Your task to perform on an android device: toggle translation in the chrome app Image 0: 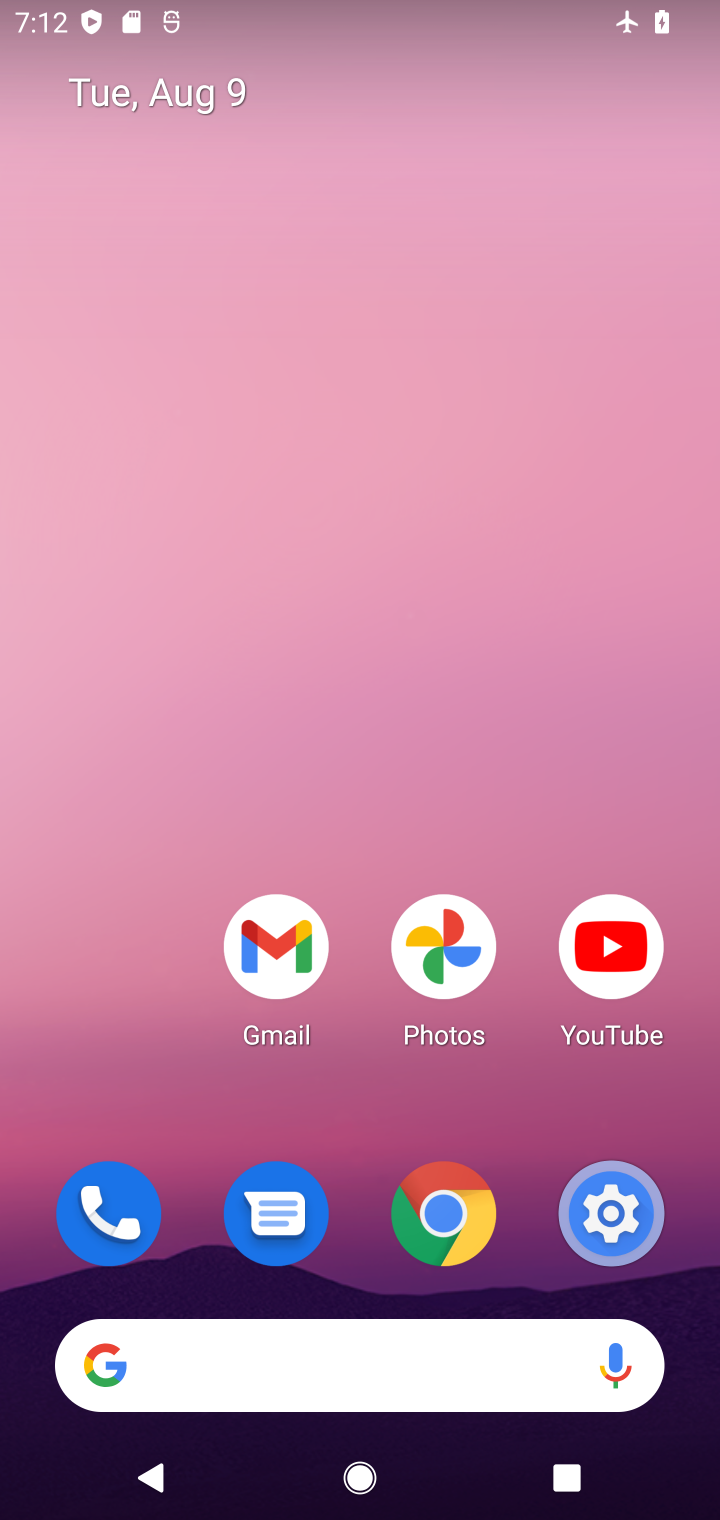
Step 0: click (445, 1233)
Your task to perform on an android device: toggle translation in the chrome app Image 1: 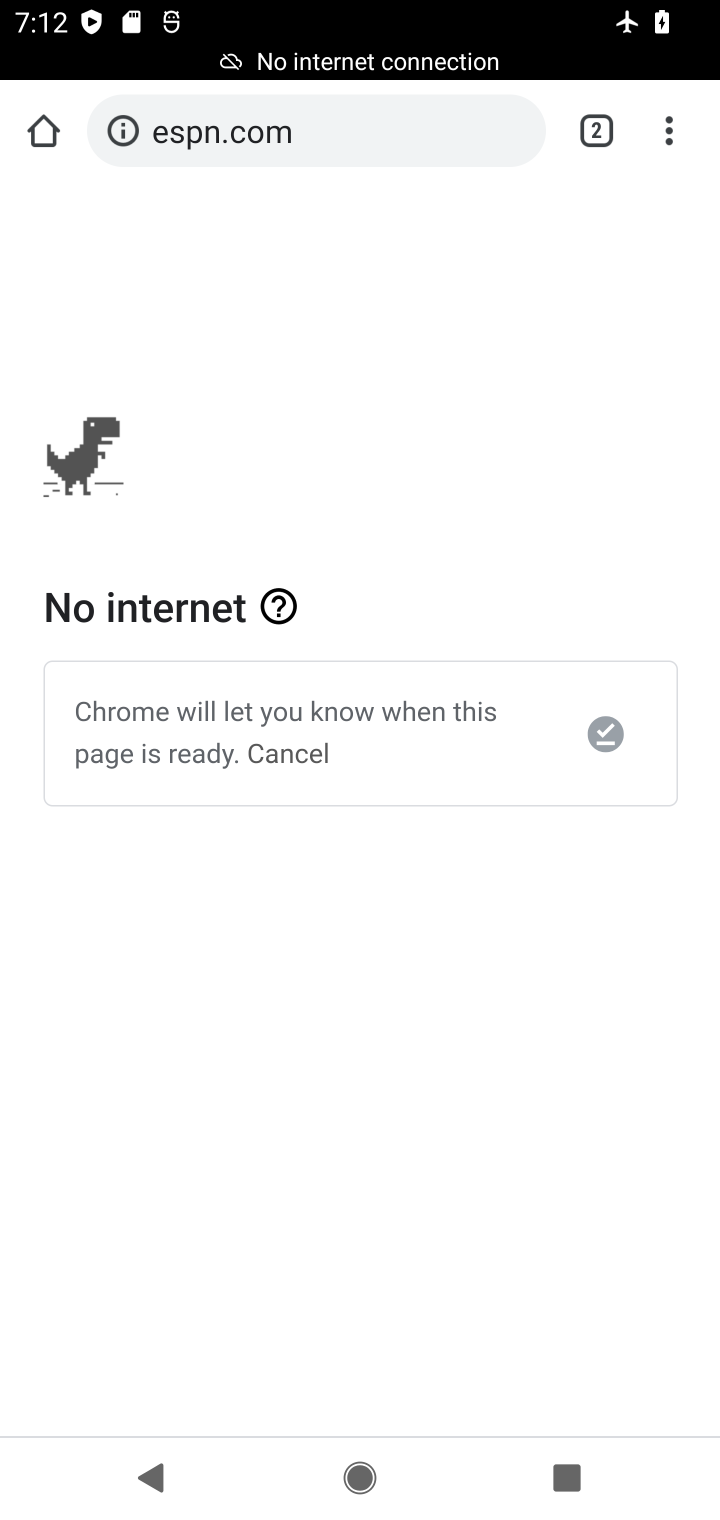
Step 1: click (659, 152)
Your task to perform on an android device: toggle translation in the chrome app Image 2: 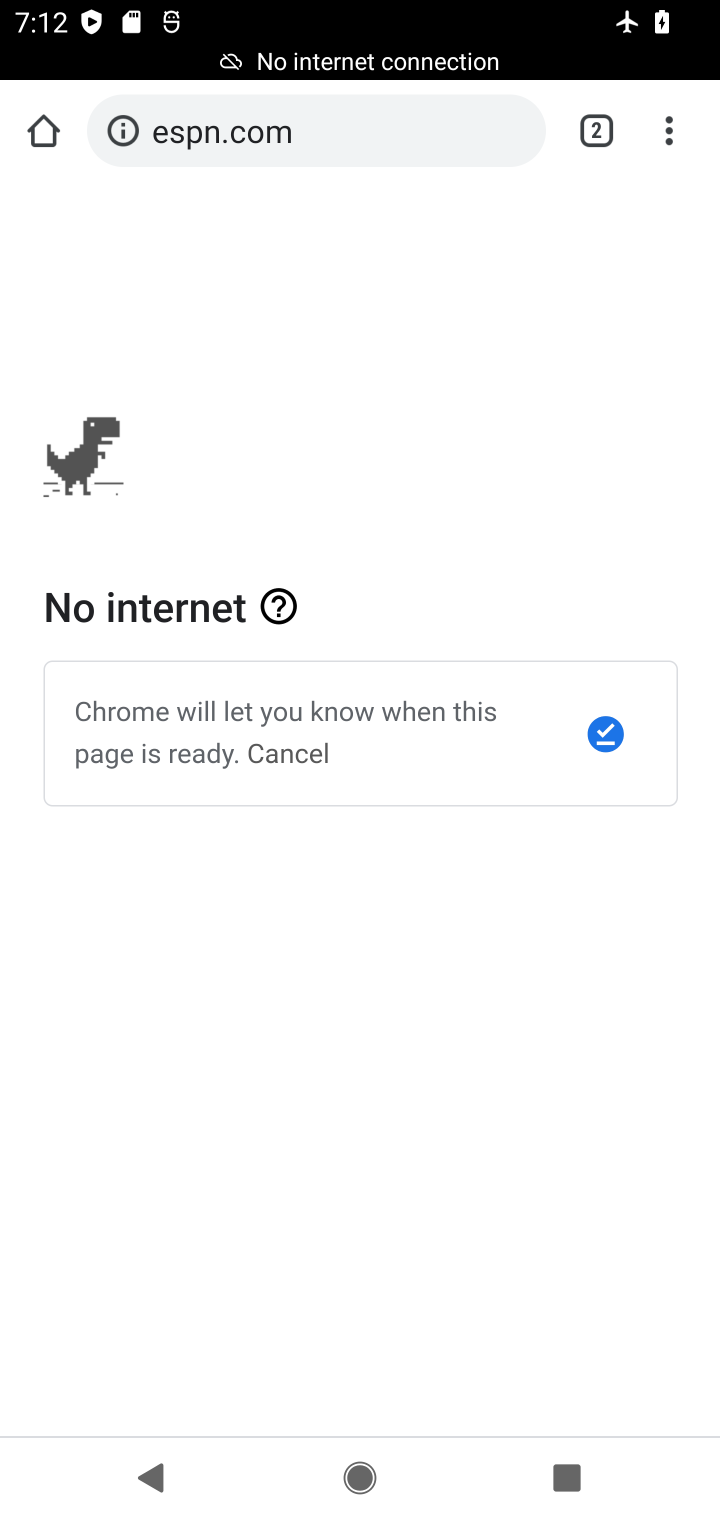
Step 2: click (659, 152)
Your task to perform on an android device: toggle translation in the chrome app Image 3: 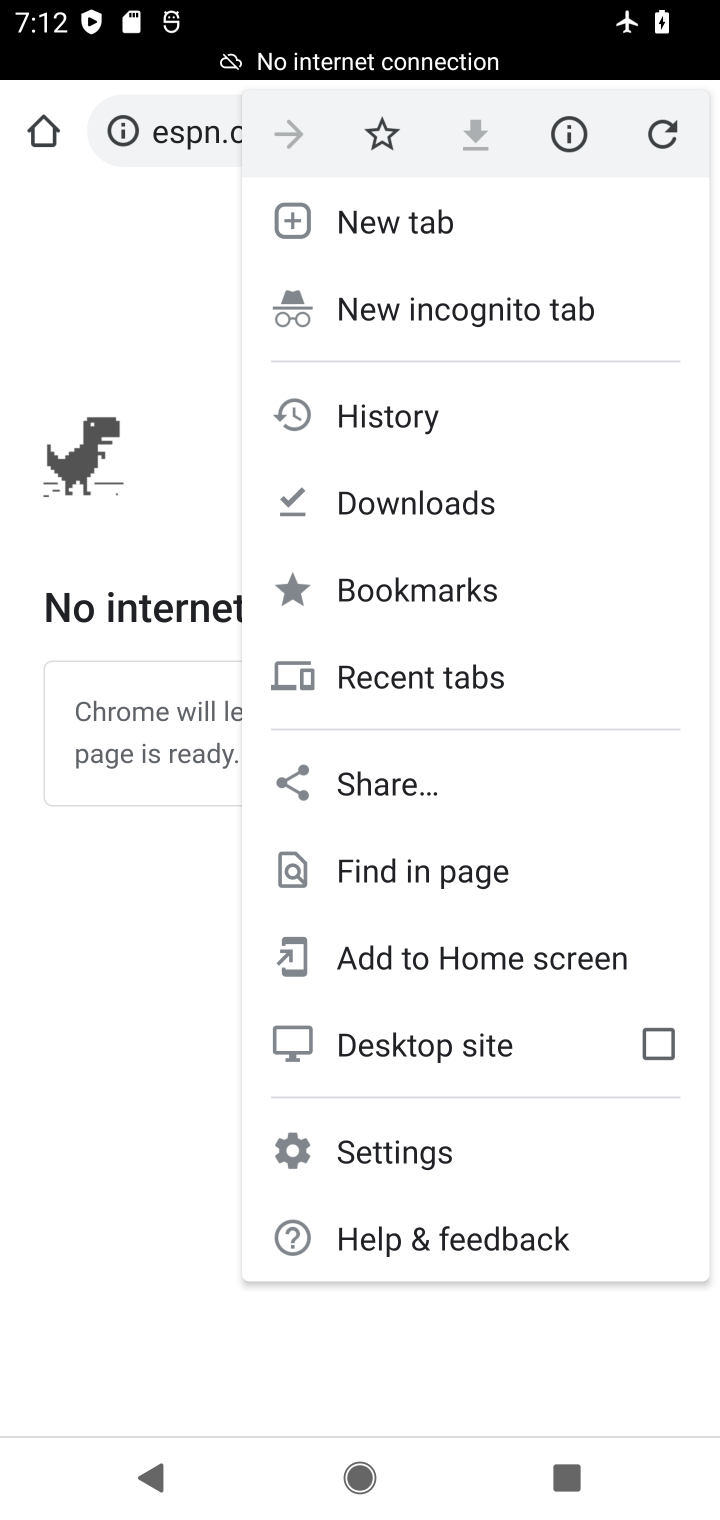
Step 3: click (398, 1127)
Your task to perform on an android device: toggle translation in the chrome app Image 4: 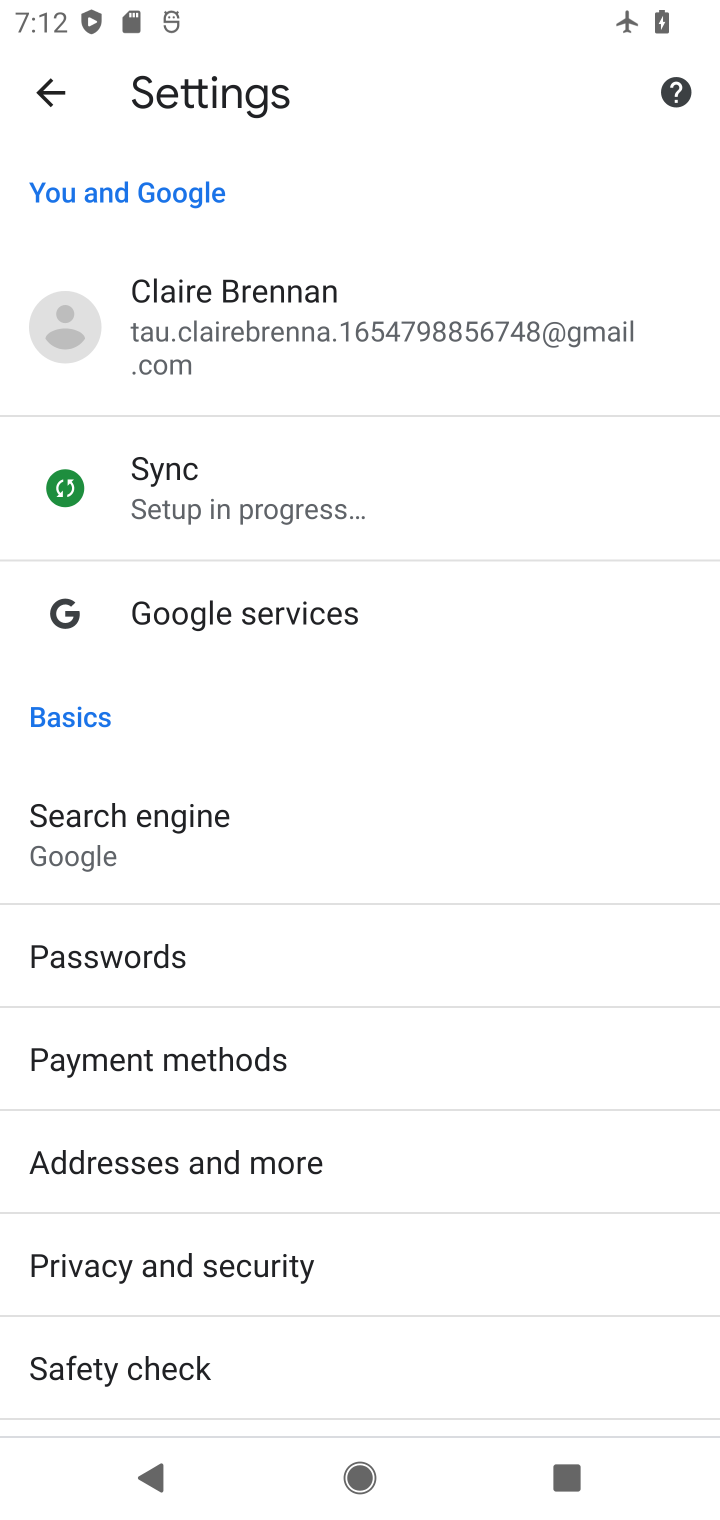
Step 4: drag from (284, 1038) to (307, 19)
Your task to perform on an android device: toggle translation in the chrome app Image 5: 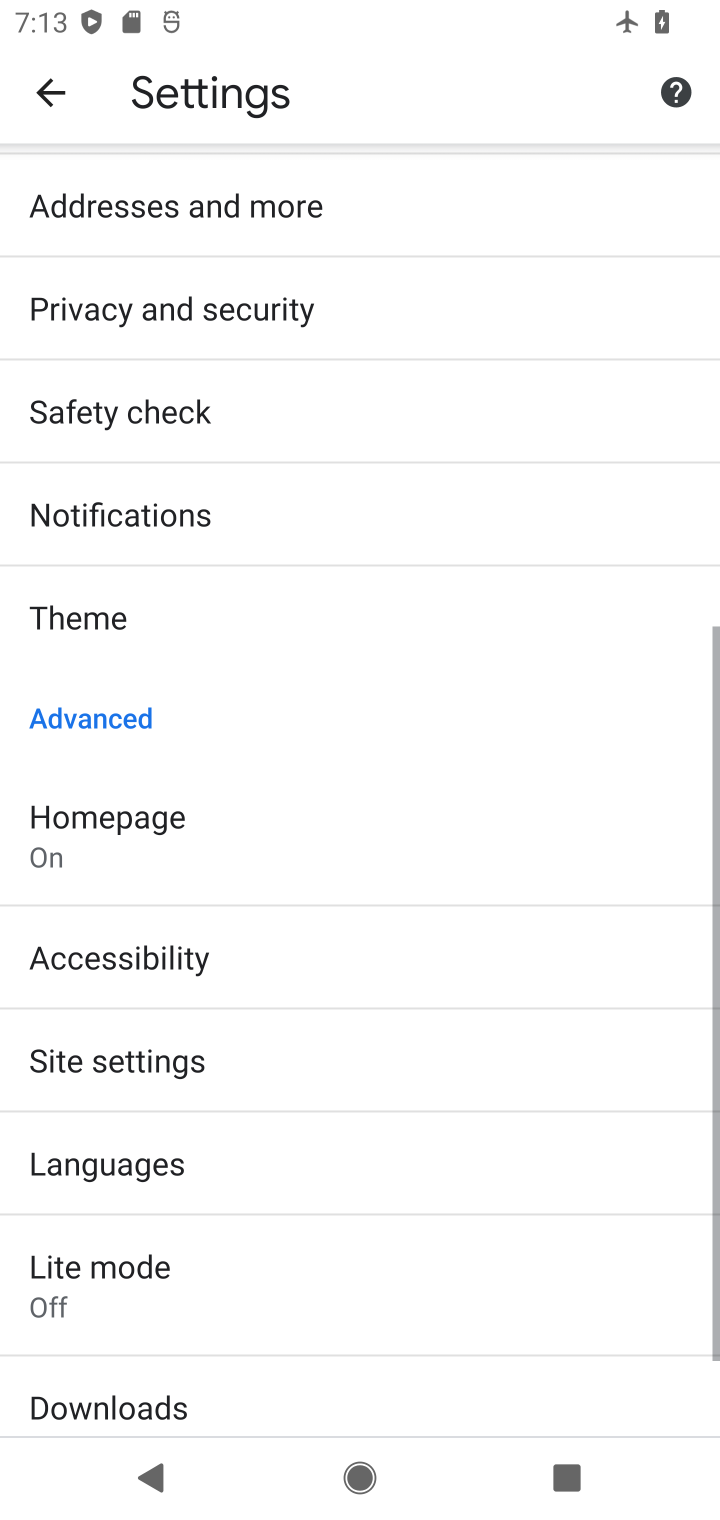
Step 5: click (91, 1136)
Your task to perform on an android device: toggle translation in the chrome app Image 6: 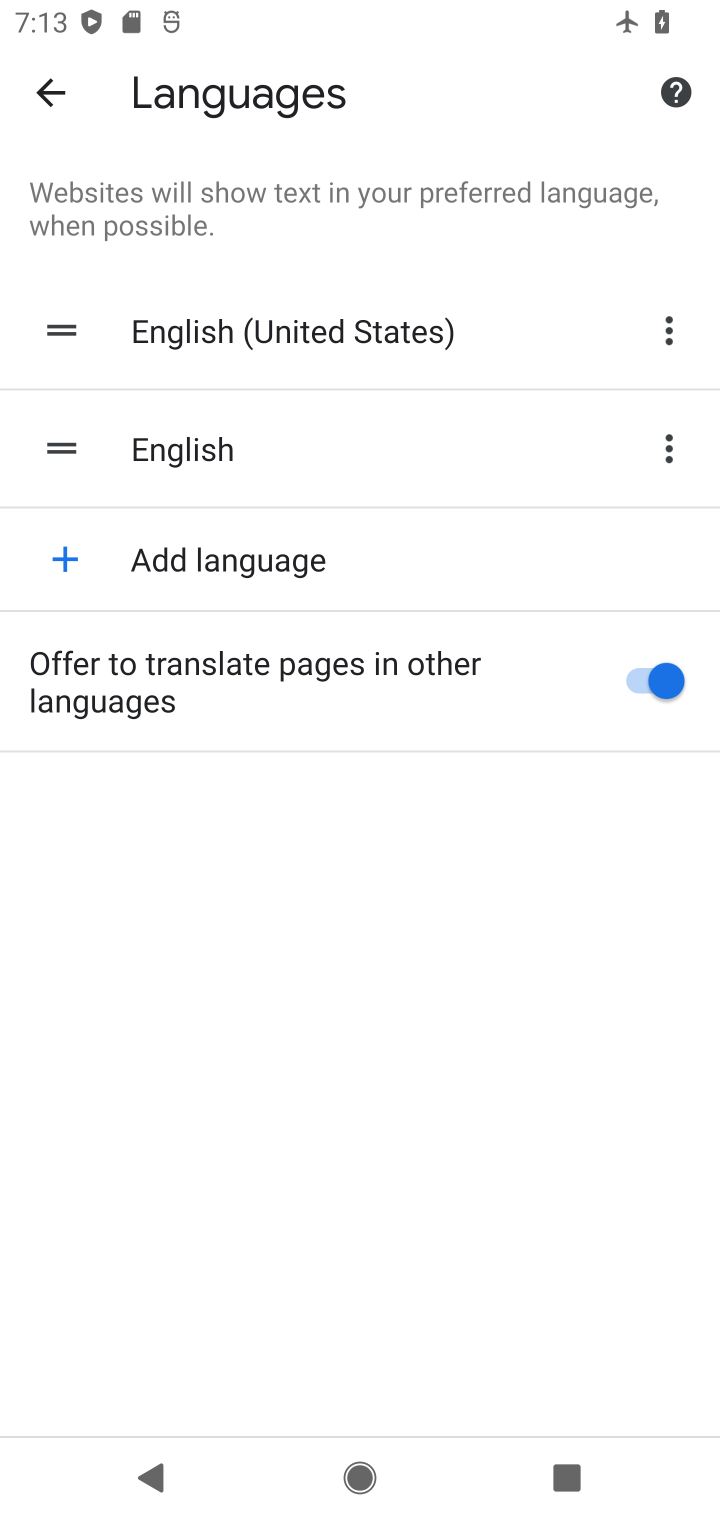
Step 6: click (637, 677)
Your task to perform on an android device: toggle translation in the chrome app Image 7: 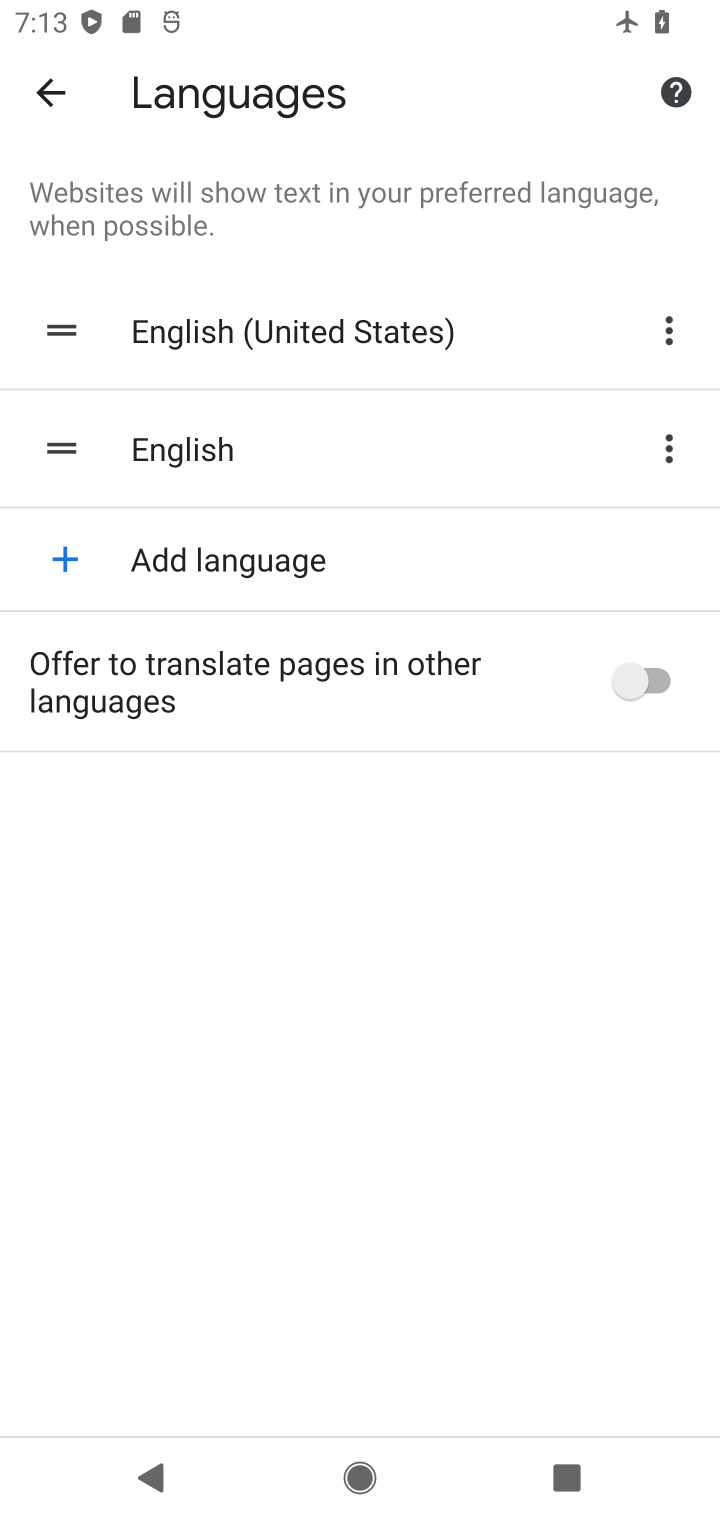
Step 7: task complete